Your task to perform on an android device: Go to settings Image 0: 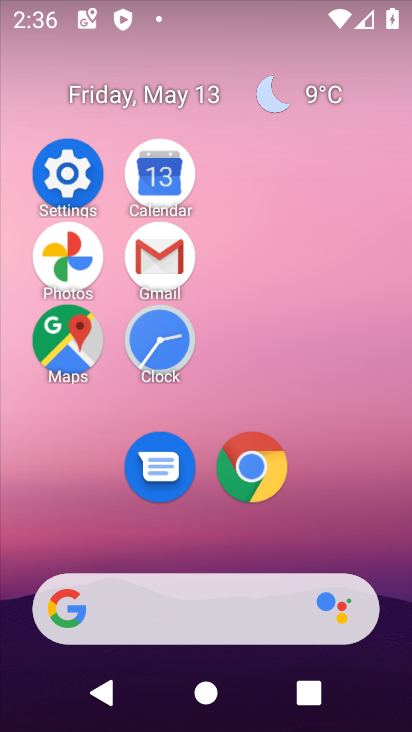
Step 0: click (80, 175)
Your task to perform on an android device: Go to settings Image 1: 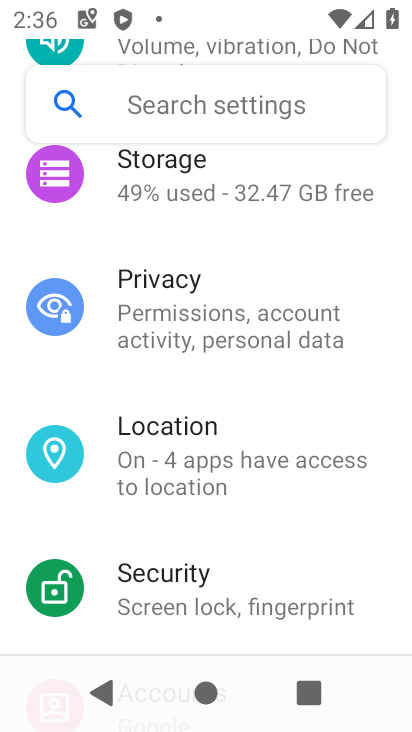
Step 1: task complete